Your task to perform on an android device: toggle data saver in the chrome app Image 0: 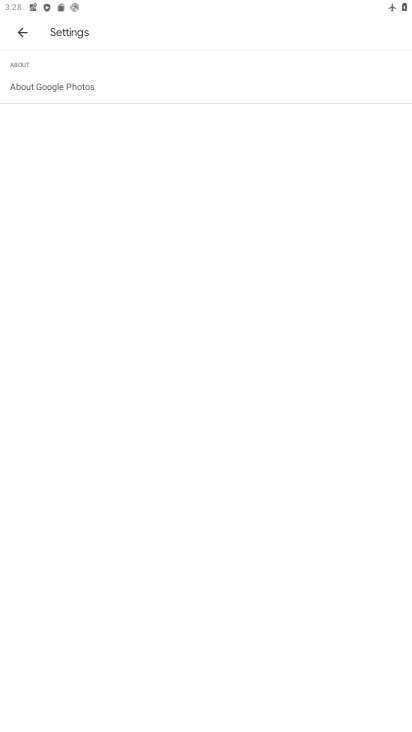
Step 0: press home button
Your task to perform on an android device: toggle data saver in the chrome app Image 1: 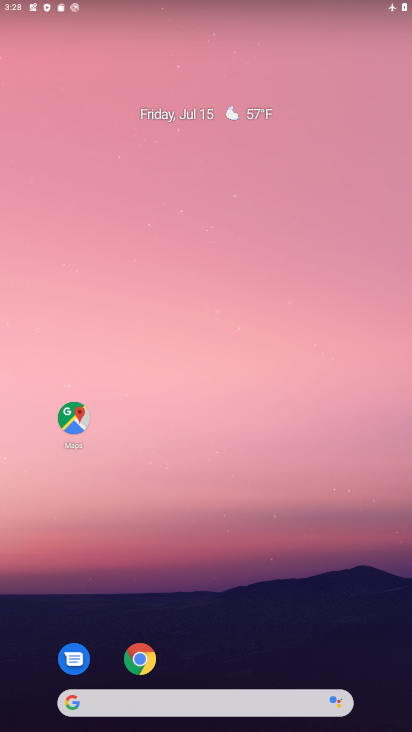
Step 1: click (126, 654)
Your task to perform on an android device: toggle data saver in the chrome app Image 2: 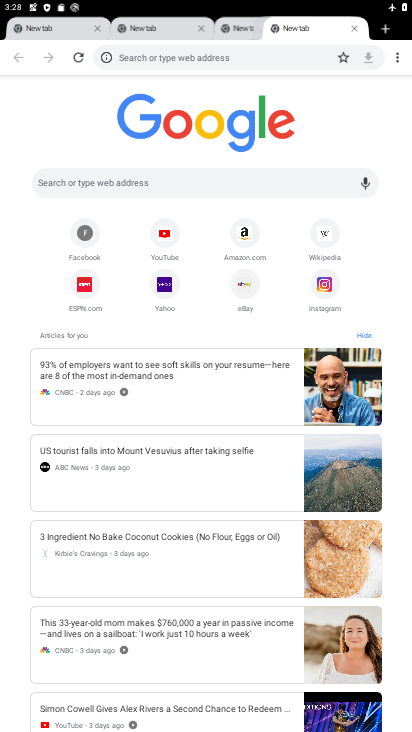
Step 2: click (397, 61)
Your task to perform on an android device: toggle data saver in the chrome app Image 3: 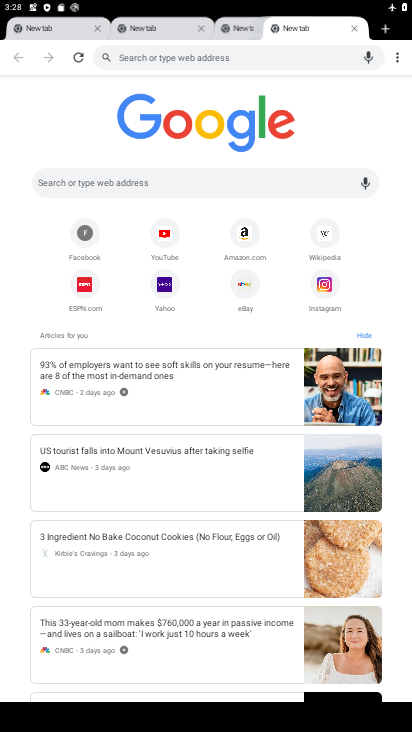
Step 3: task complete